Your task to perform on an android device: change the clock display to digital Image 0: 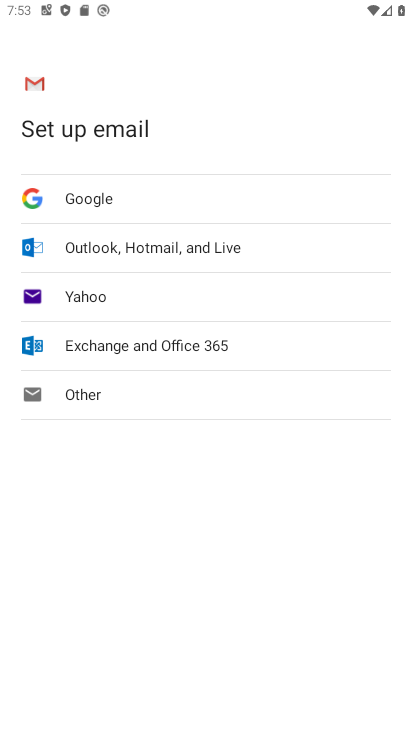
Step 0: press home button
Your task to perform on an android device: change the clock display to digital Image 1: 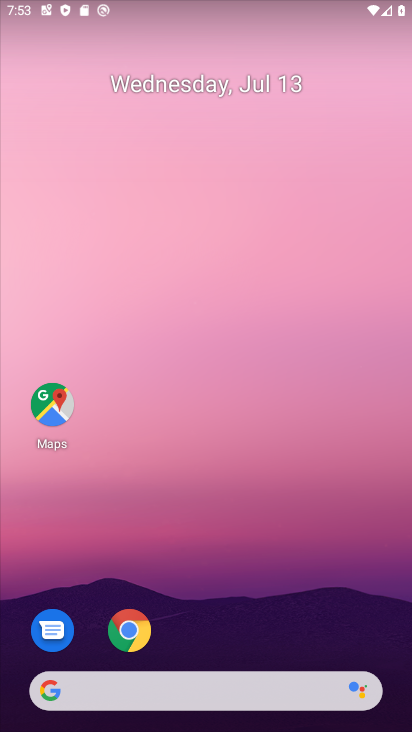
Step 1: drag from (324, 573) to (313, 161)
Your task to perform on an android device: change the clock display to digital Image 2: 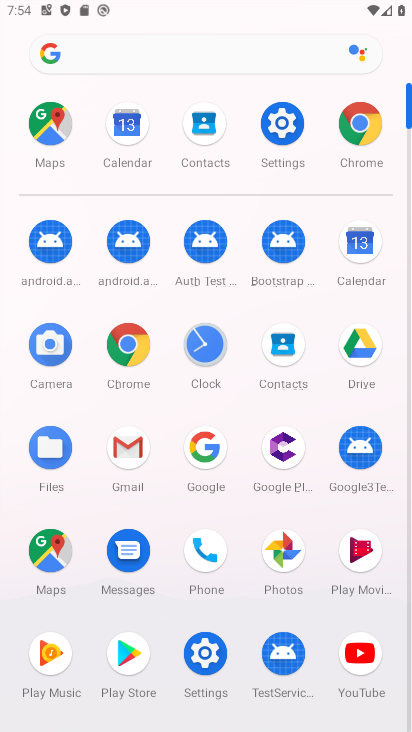
Step 2: click (209, 342)
Your task to perform on an android device: change the clock display to digital Image 3: 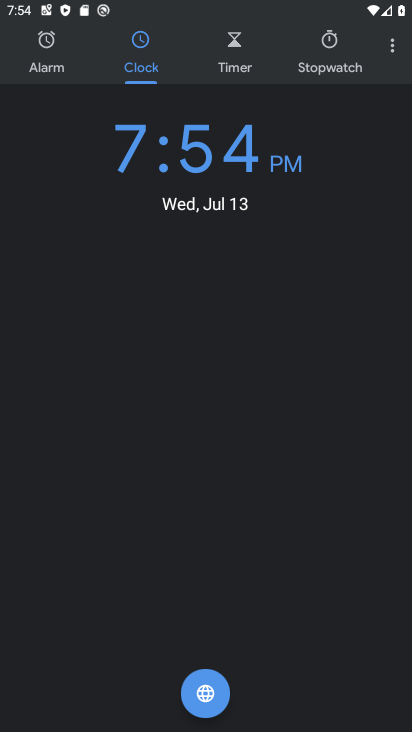
Step 3: click (391, 51)
Your task to perform on an android device: change the clock display to digital Image 4: 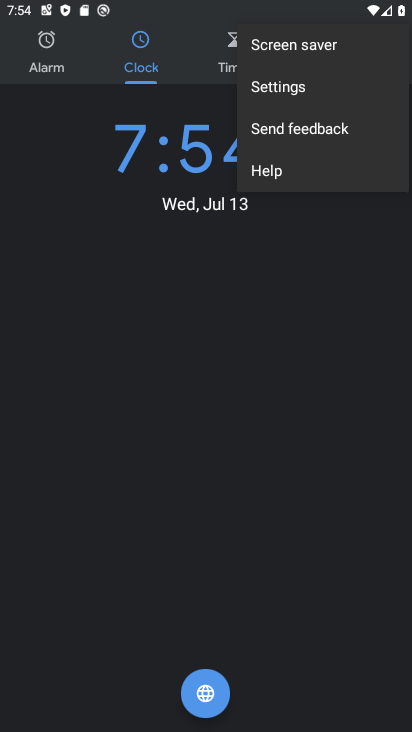
Step 4: click (312, 92)
Your task to perform on an android device: change the clock display to digital Image 5: 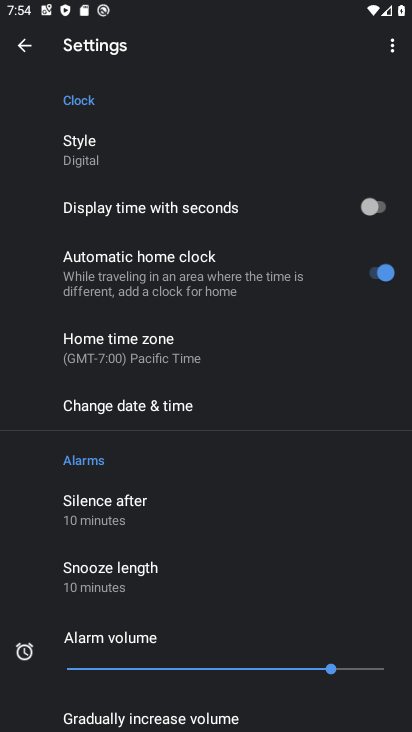
Step 5: task complete